Your task to perform on an android device: Open maps Image 0: 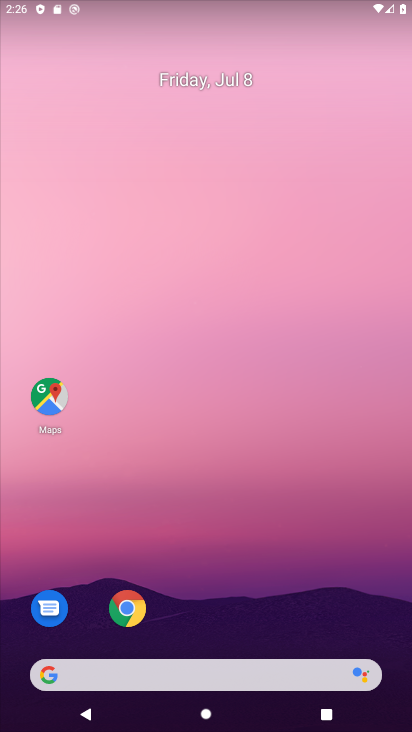
Step 0: click (45, 393)
Your task to perform on an android device: Open maps Image 1: 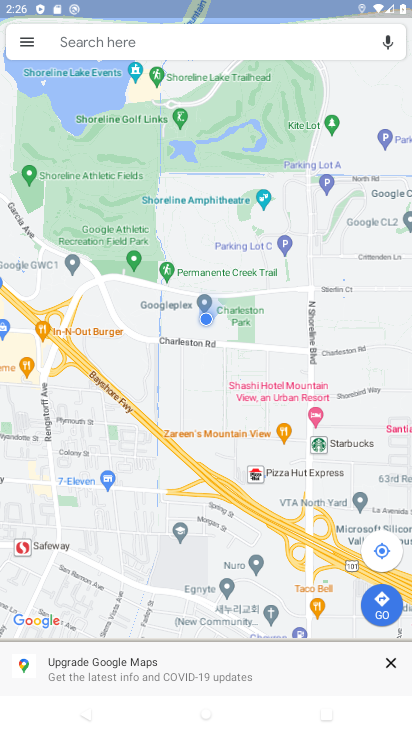
Step 1: task complete